Your task to perform on an android device: toggle improve location accuracy Image 0: 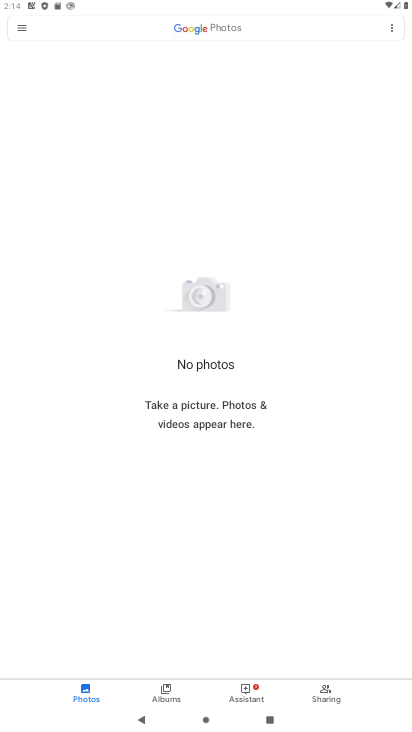
Step 0: press home button
Your task to perform on an android device: toggle improve location accuracy Image 1: 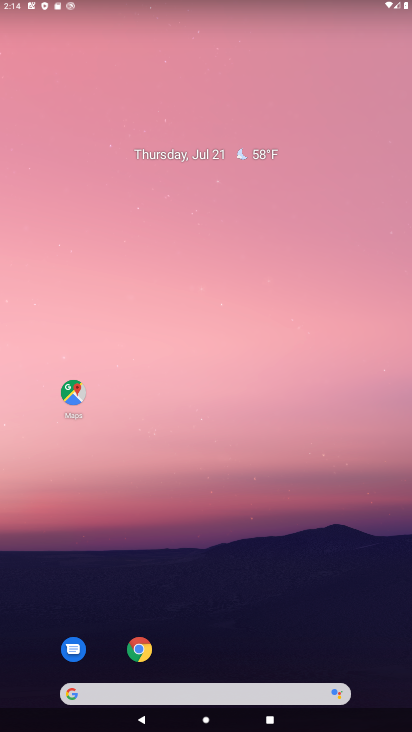
Step 1: drag from (209, 662) to (283, 210)
Your task to perform on an android device: toggle improve location accuracy Image 2: 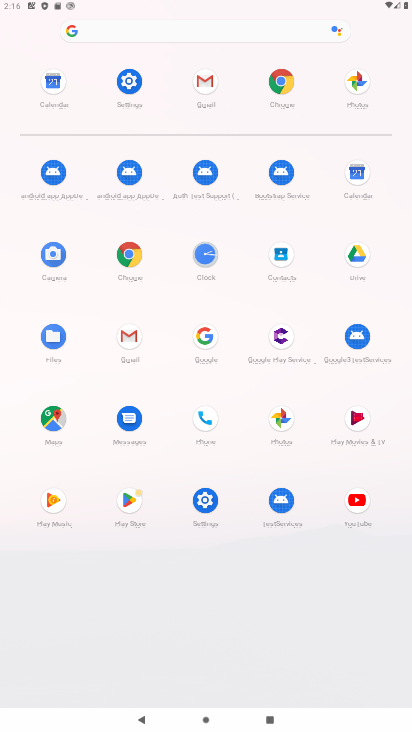
Step 2: click (212, 512)
Your task to perform on an android device: toggle improve location accuracy Image 3: 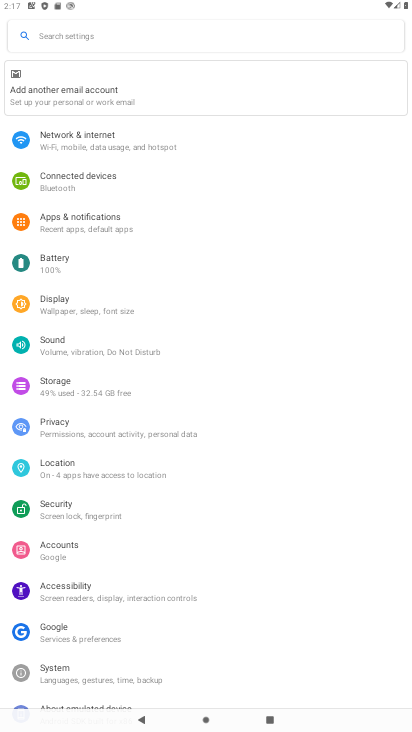
Step 3: click (112, 472)
Your task to perform on an android device: toggle improve location accuracy Image 4: 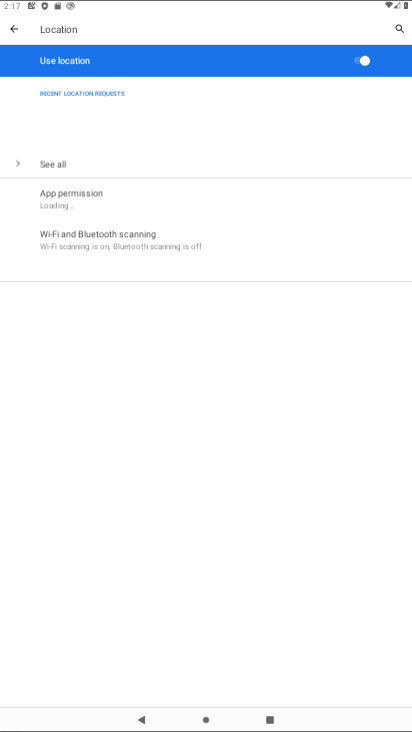
Step 4: task complete